Your task to perform on an android device: Do I have any events this weekend? Image 0: 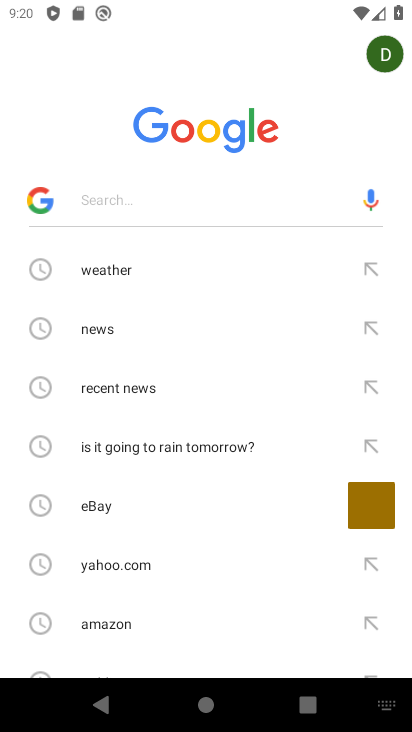
Step 0: press home button
Your task to perform on an android device: Do I have any events this weekend? Image 1: 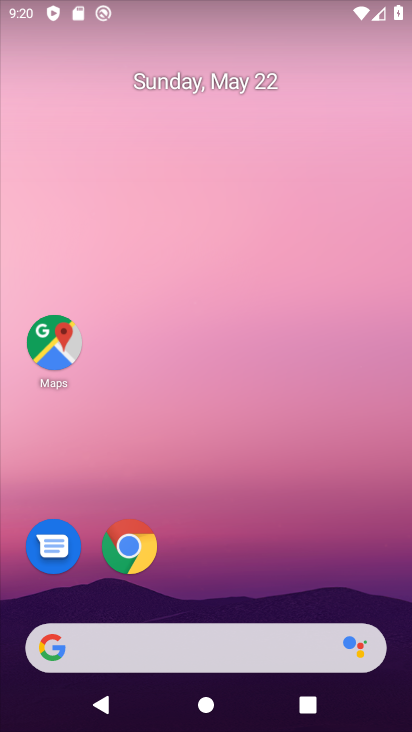
Step 1: drag from (230, 642) to (282, 135)
Your task to perform on an android device: Do I have any events this weekend? Image 2: 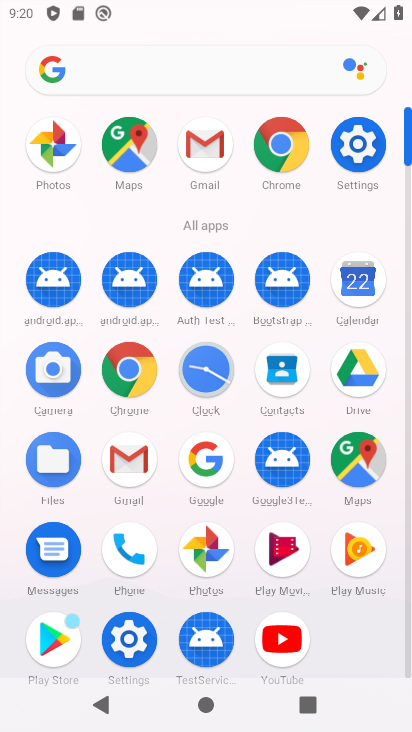
Step 2: click (362, 295)
Your task to perform on an android device: Do I have any events this weekend? Image 3: 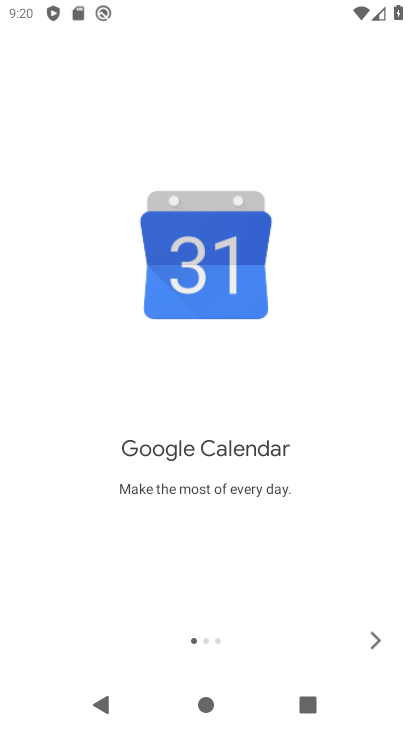
Step 3: click (384, 639)
Your task to perform on an android device: Do I have any events this weekend? Image 4: 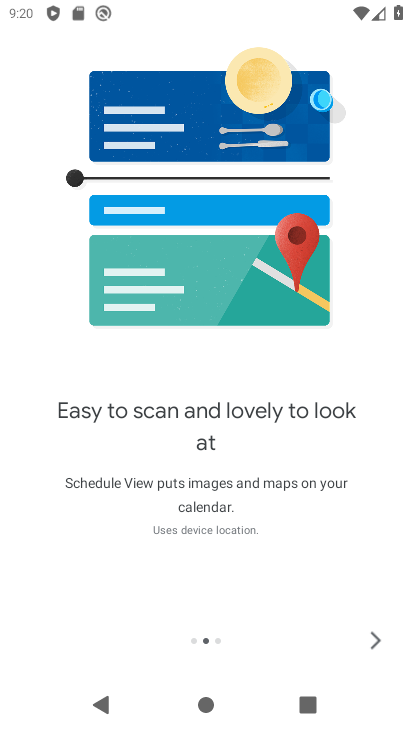
Step 4: click (374, 637)
Your task to perform on an android device: Do I have any events this weekend? Image 5: 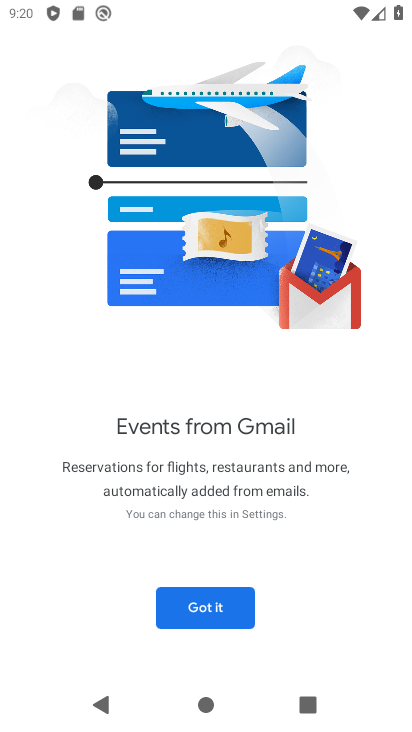
Step 5: click (211, 607)
Your task to perform on an android device: Do I have any events this weekend? Image 6: 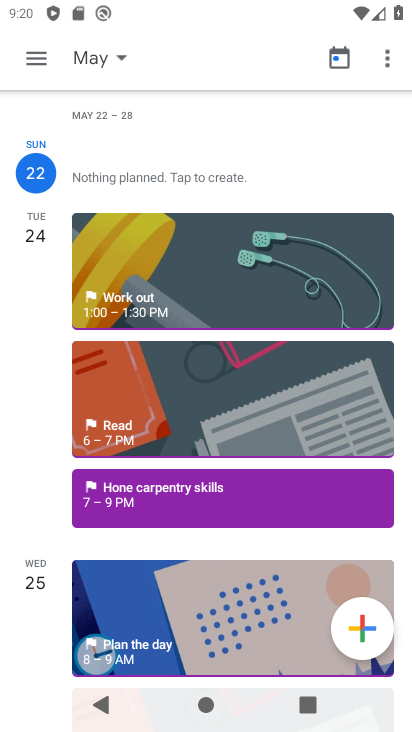
Step 6: click (47, 55)
Your task to perform on an android device: Do I have any events this weekend? Image 7: 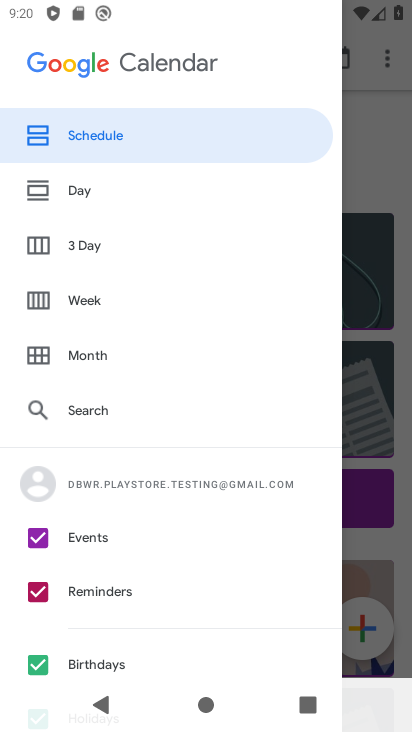
Step 7: click (93, 302)
Your task to perform on an android device: Do I have any events this weekend? Image 8: 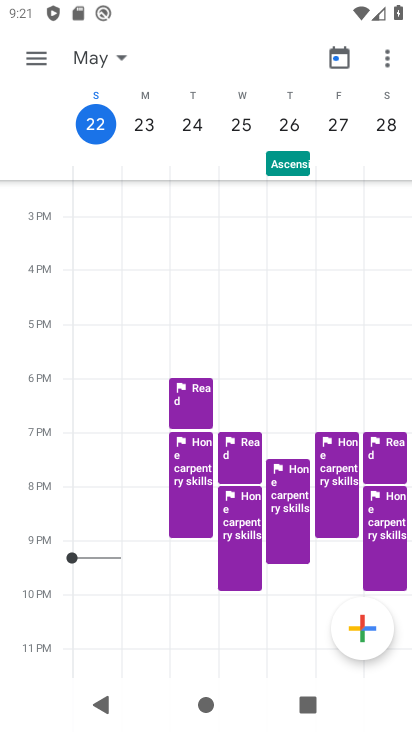
Step 8: task complete